Your task to perform on an android device: Open my contact list Image 0: 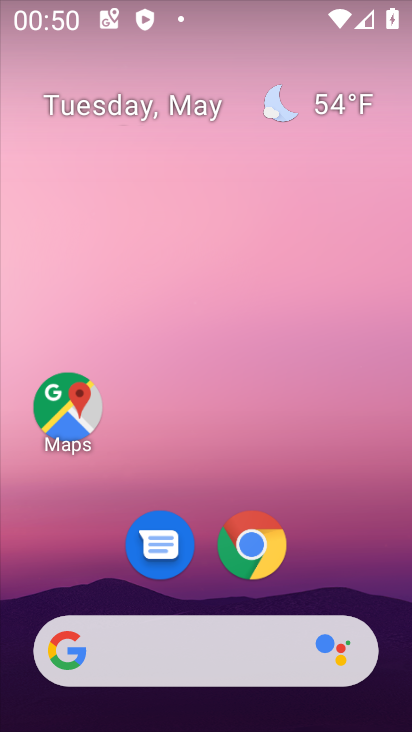
Step 0: drag from (352, 595) to (354, 150)
Your task to perform on an android device: Open my contact list Image 1: 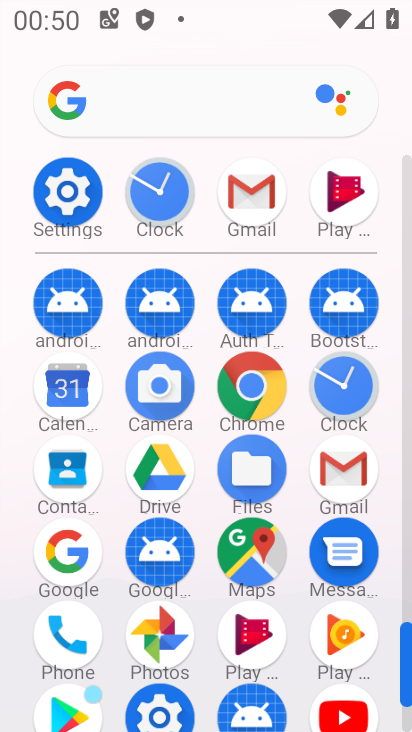
Step 1: click (81, 471)
Your task to perform on an android device: Open my contact list Image 2: 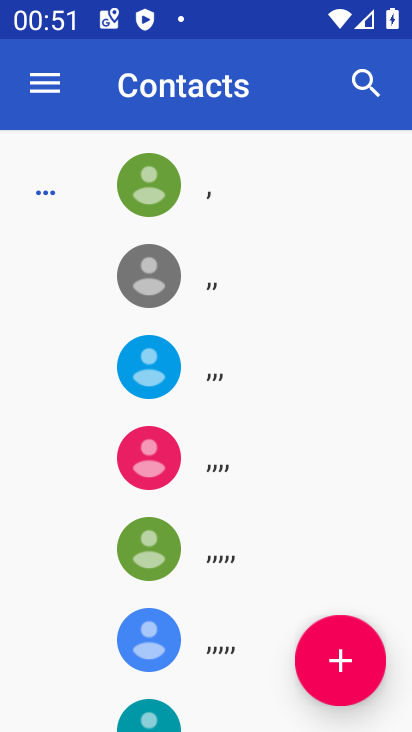
Step 2: task complete